Your task to perform on an android device: Open my contact list Image 0: 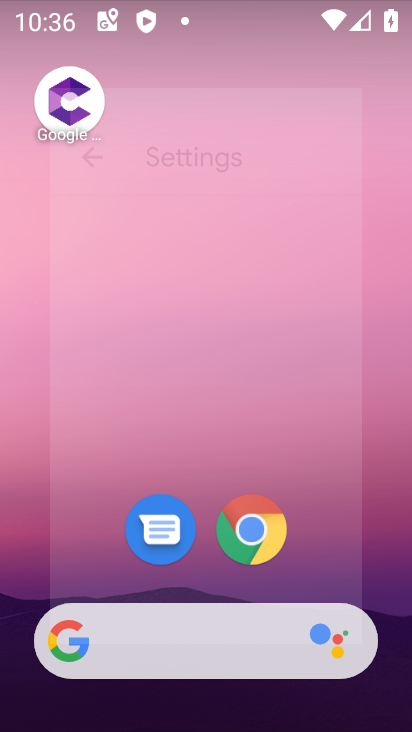
Step 0: click (261, 530)
Your task to perform on an android device: Open my contact list Image 1: 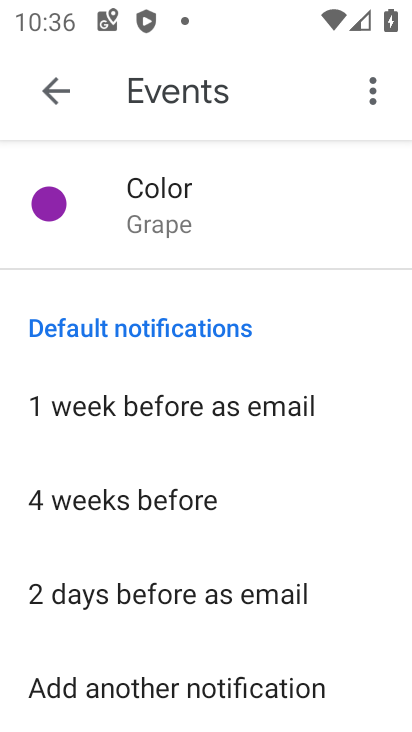
Step 1: press home button
Your task to perform on an android device: Open my contact list Image 2: 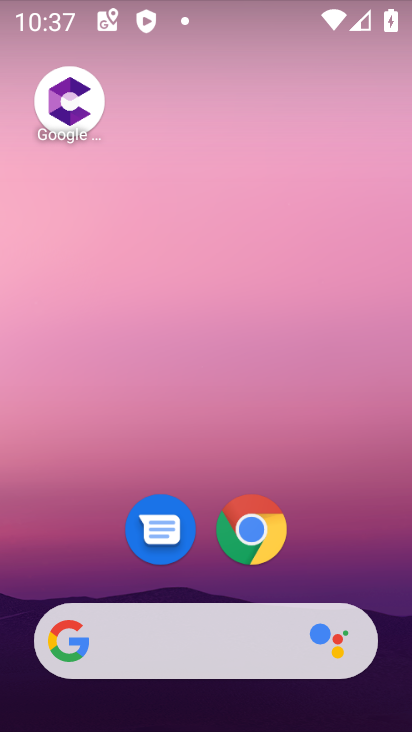
Step 2: drag from (328, 546) to (284, 90)
Your task to perform on an android device: Open my contact list Image 3: 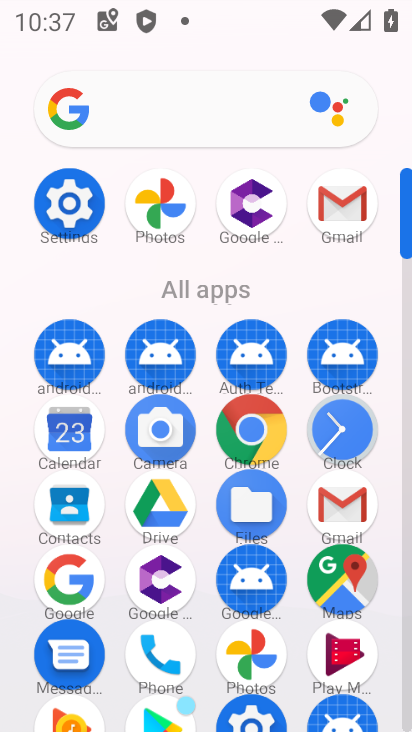
Step 3: click (67, 497)
Your task to perform on an android device: Open my contact list Image 4: 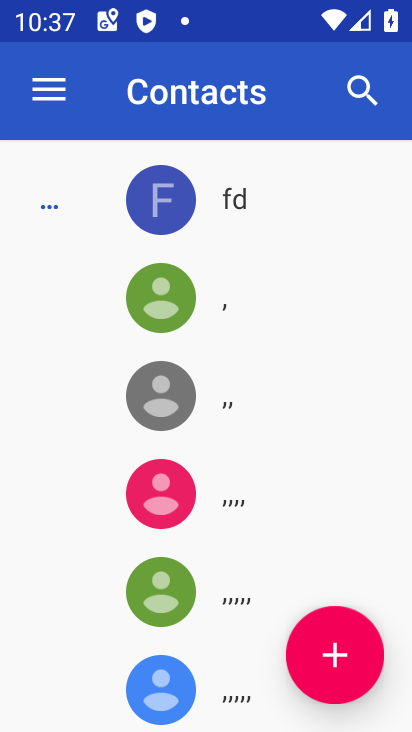
Step 4: click (327, 650)
Your task to perform on an android device: Open my contact list Image 5: 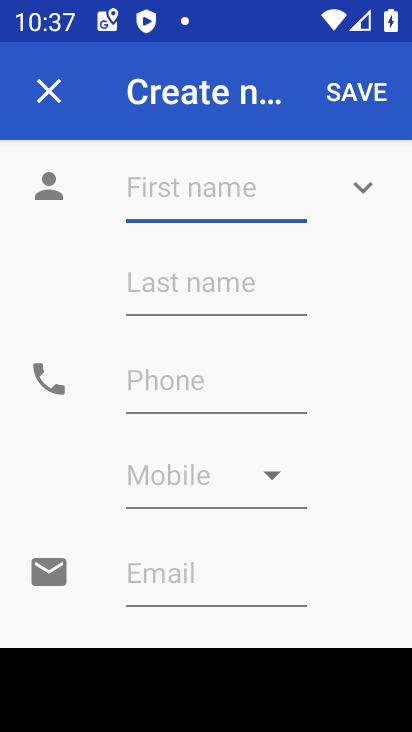
Step 5: click (42, 89)
Your task to perform on an android device: Open my contact list Image 6: 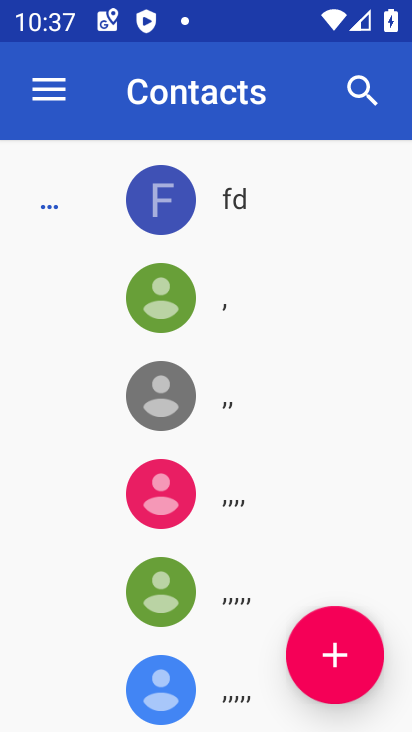
Step 6: task complete